Your task to perform on an android device: Go to Reddit.com Image 0: 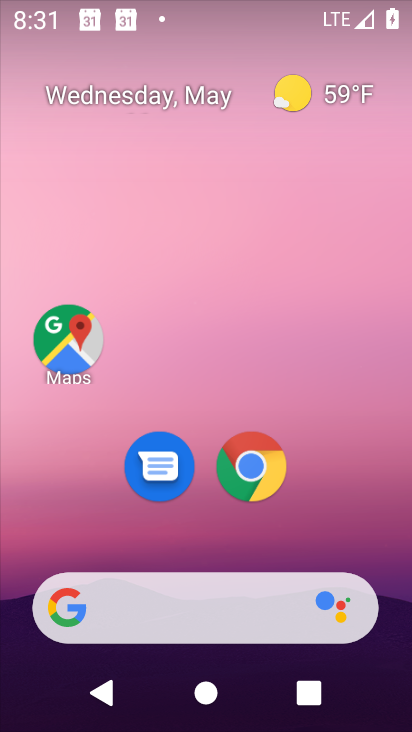
Step 0: drag from (285, 393) to (272, 283)
Your task to perform on an android device: Go to Reddit.com Image 1: 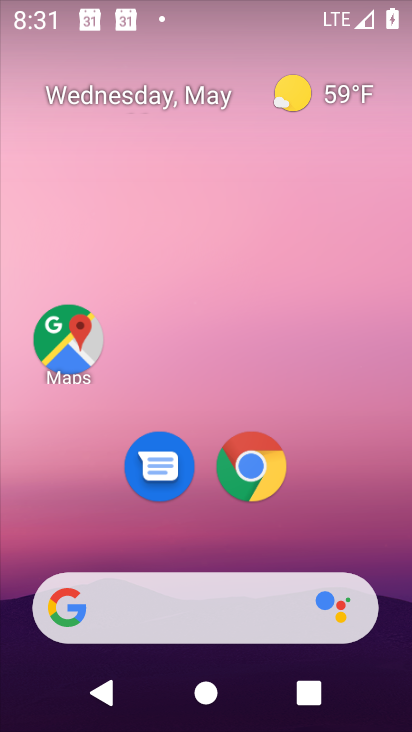
Step 1: drag from (297, 512) to (333, 62)
Your task to perform on an android device: Go to Reddit.com Image 2: 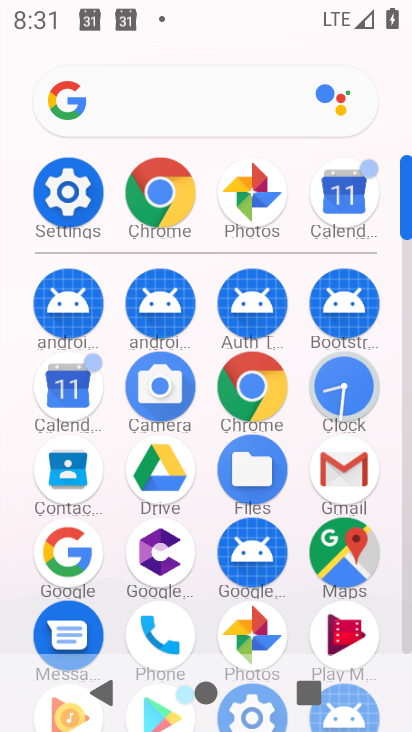
Step 2: click (156, 181)
Your task to perform on an android device: Go to Reddit.com Image 3: 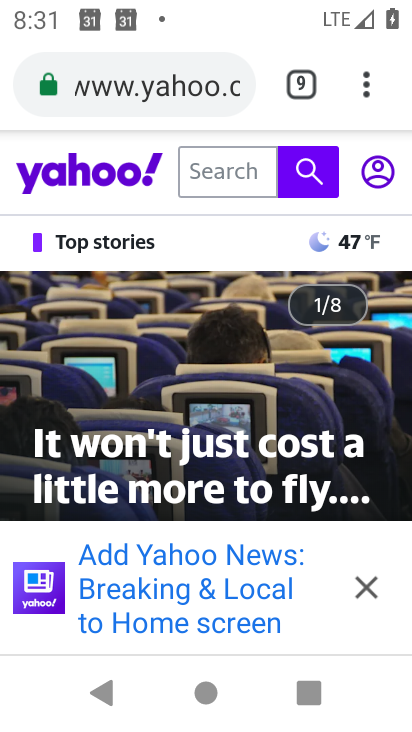
Step 3: click (348, 78)
Your task to perform on an android device: Go to Reddit.com Image 4: 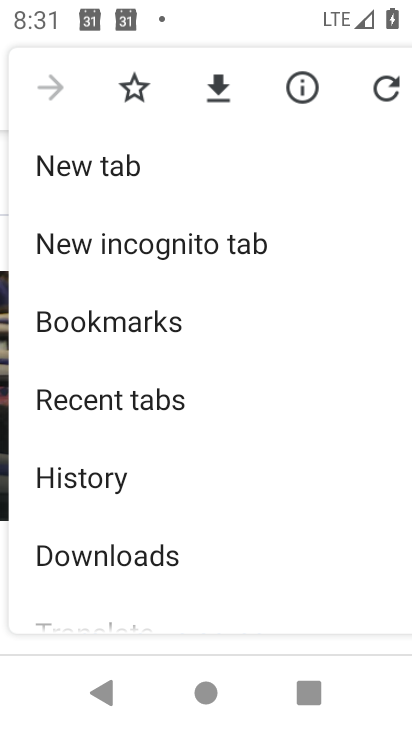
Step 4: click (132, 174)
Your task to perform on an android device: Go to Reddit.com Image 5: 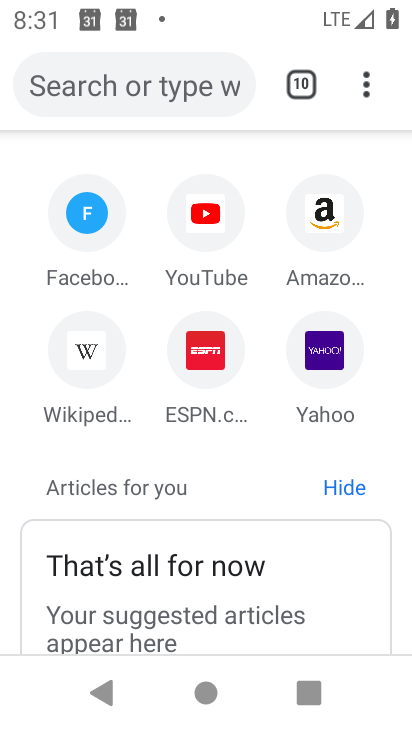
Step 5: click (350, 83)
Your task to perform on an android device: Go to Reddit.com Image 6: 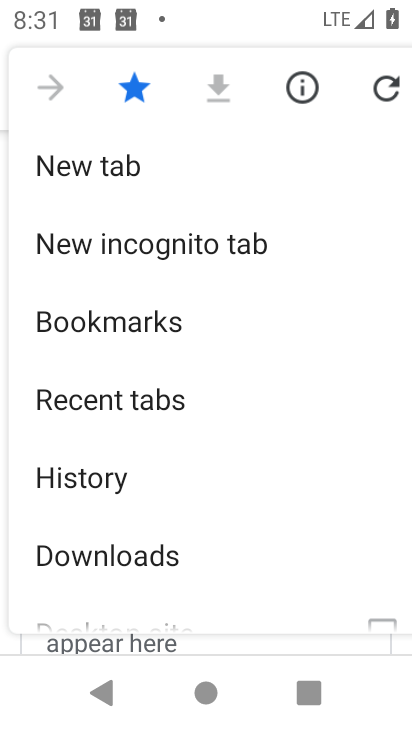
Step 6: click (126, 175)
Your task to perform on an android device: Go to Reddit.com Image 7: 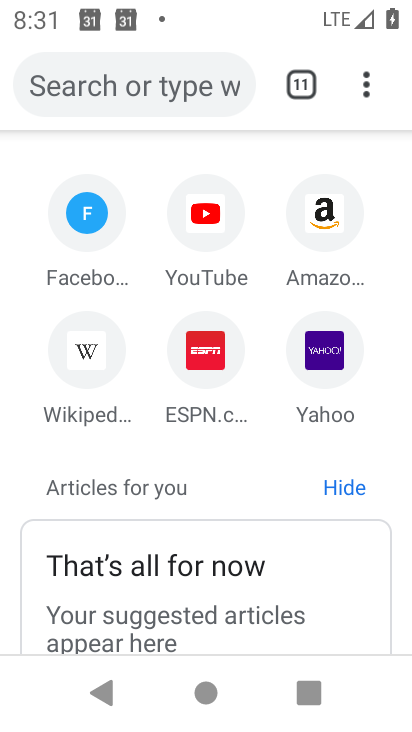
Step 7: click (171, 89)
Your task to perform on an android device: Go to Reddit.com Image 8: 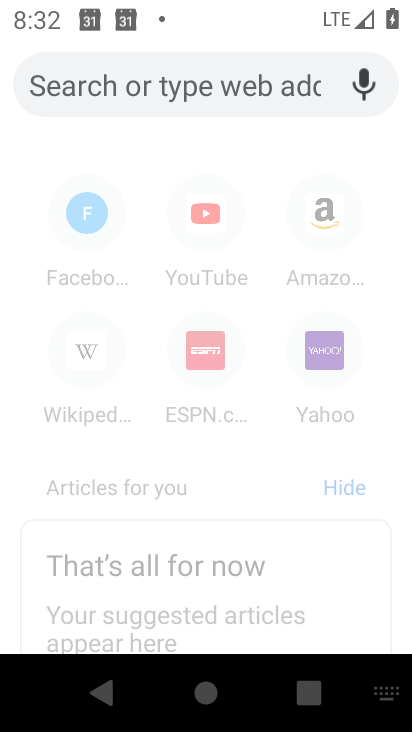
Step 8: click (171, 89)
Your task to perform on an android device: Go to Reddit.com Image 9: 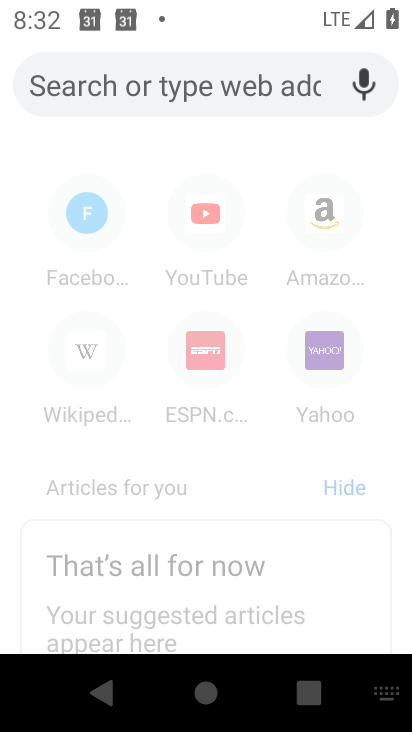
Step 9: type " Reddit.com"
Your task to perform on an android device: Go to Reddit.com Image 10: 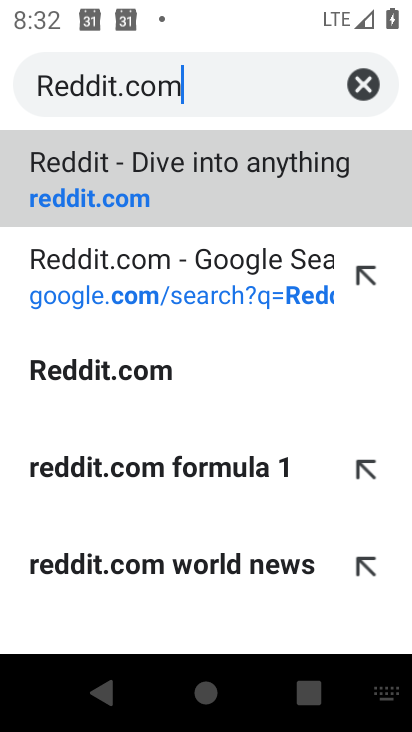
Step 10: click (164, 184)
Your task to perform on an android device: Go to Reddit.com Image 11: 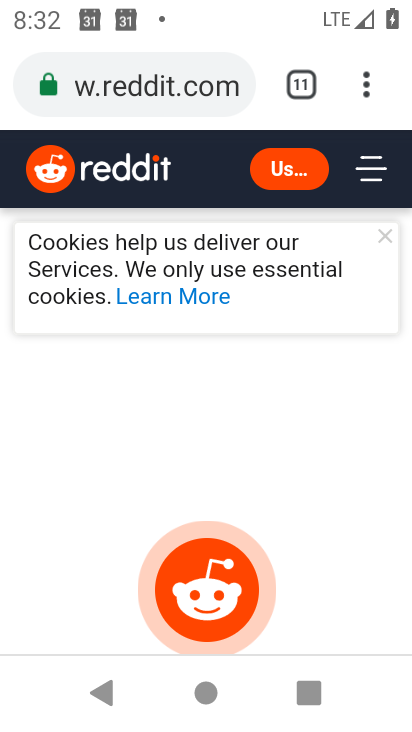
Step 11: click (105, 298)
Your task to perform on an android device: Go to Reddit.com Image 12: 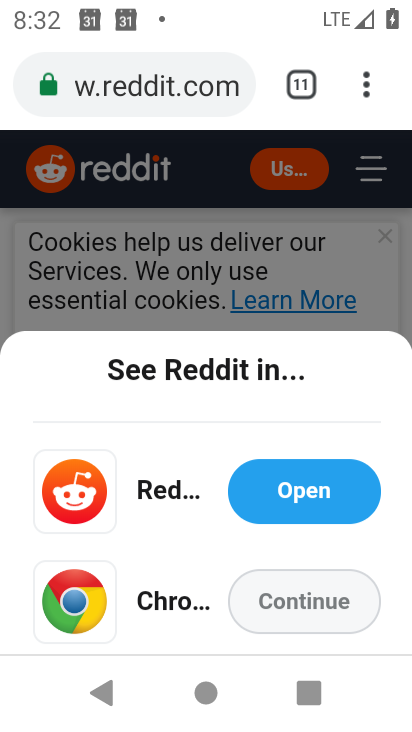
Step 12: click (105, 298)
Your task to perform on an android device: Go to Reddit.com Image 13: 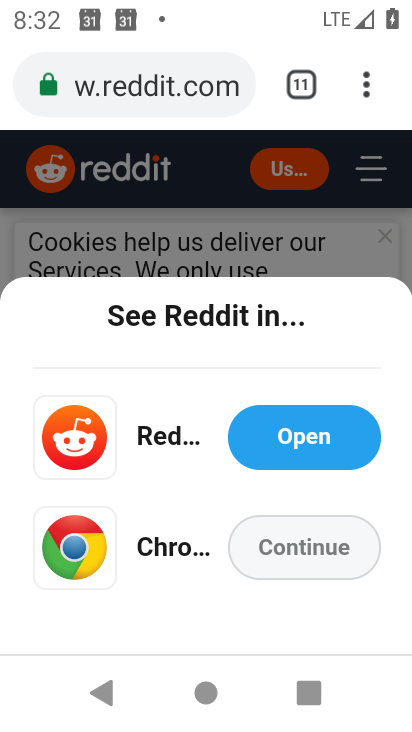
Step 13: click (105, 298)
Your task to perform on an android device: Go to Reddit.com Image 14: 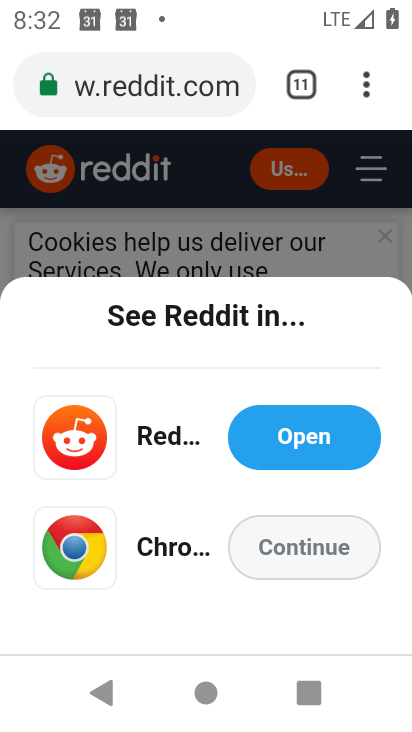
Step 14: click (93, 340)
Your task to perform on an android device: Go to Reddit.com Image 15: 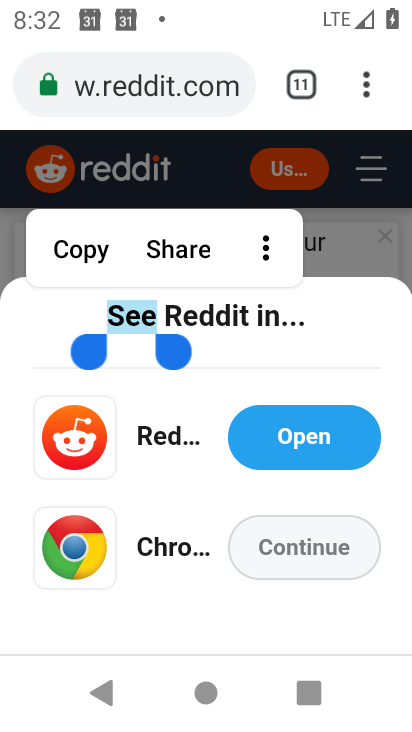
Step 15: click (89, 341)
Your task to perform on an android device: Go to Reddit.com Image 16: 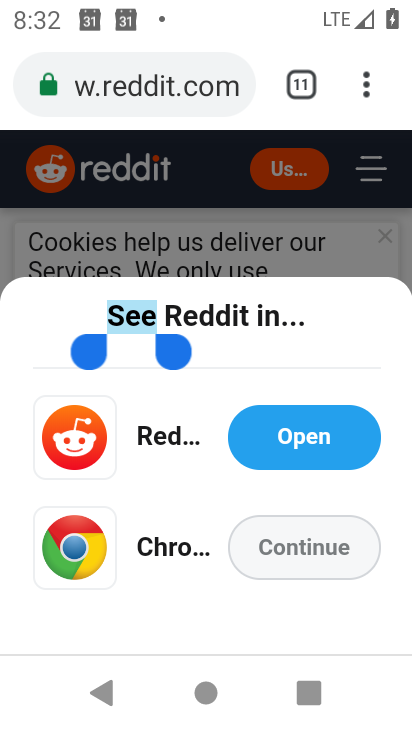
Step 16: click (89, 341)
Your task to perform on an android device: Go to Reddit.com Image 17: 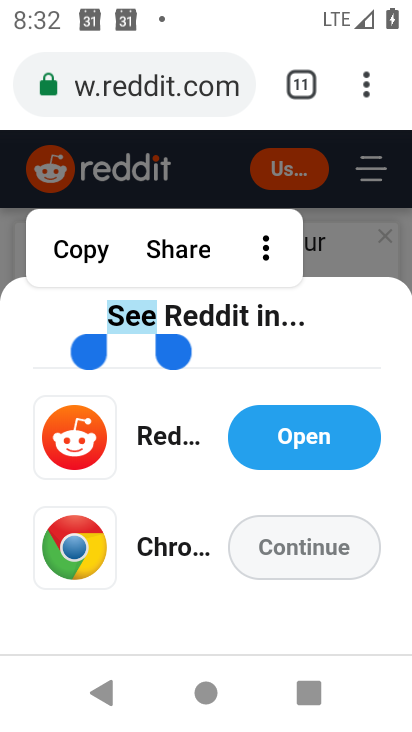
Step 17: click (23, 285)
Your task to perform on an android device: Go to Reddit.com Image 18: 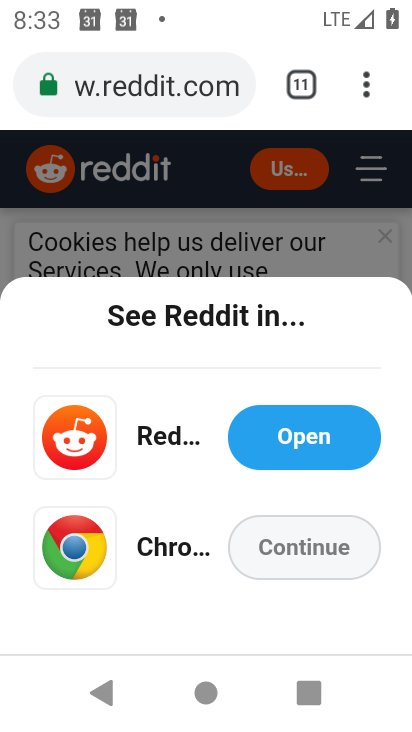
Step 18: click (291, 445)
Your task to perform on an android device: Go to Reddit.com Image 19: 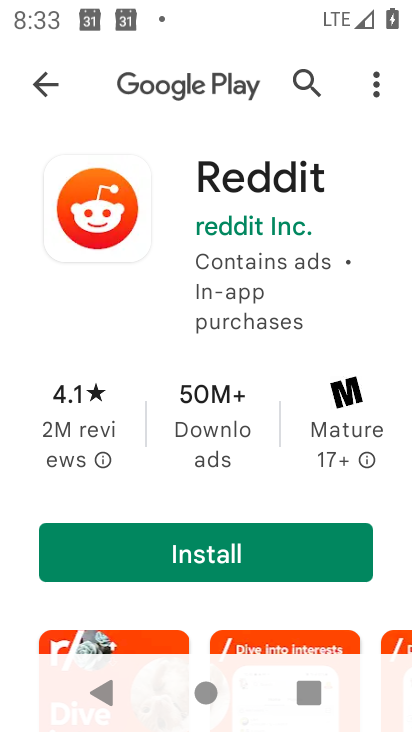
Step 19: click (47, 83)
Your task to perform on an android device: Go to Reddit.com Image 20: 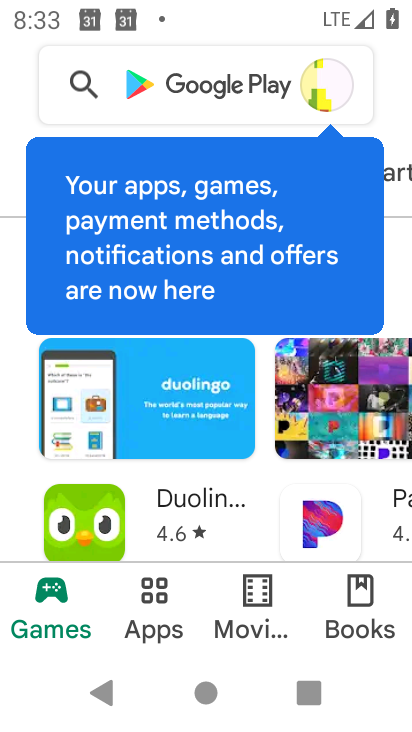
Step 20: task complete